Your task to perform on an android device: Open Reddit.com Image 0: 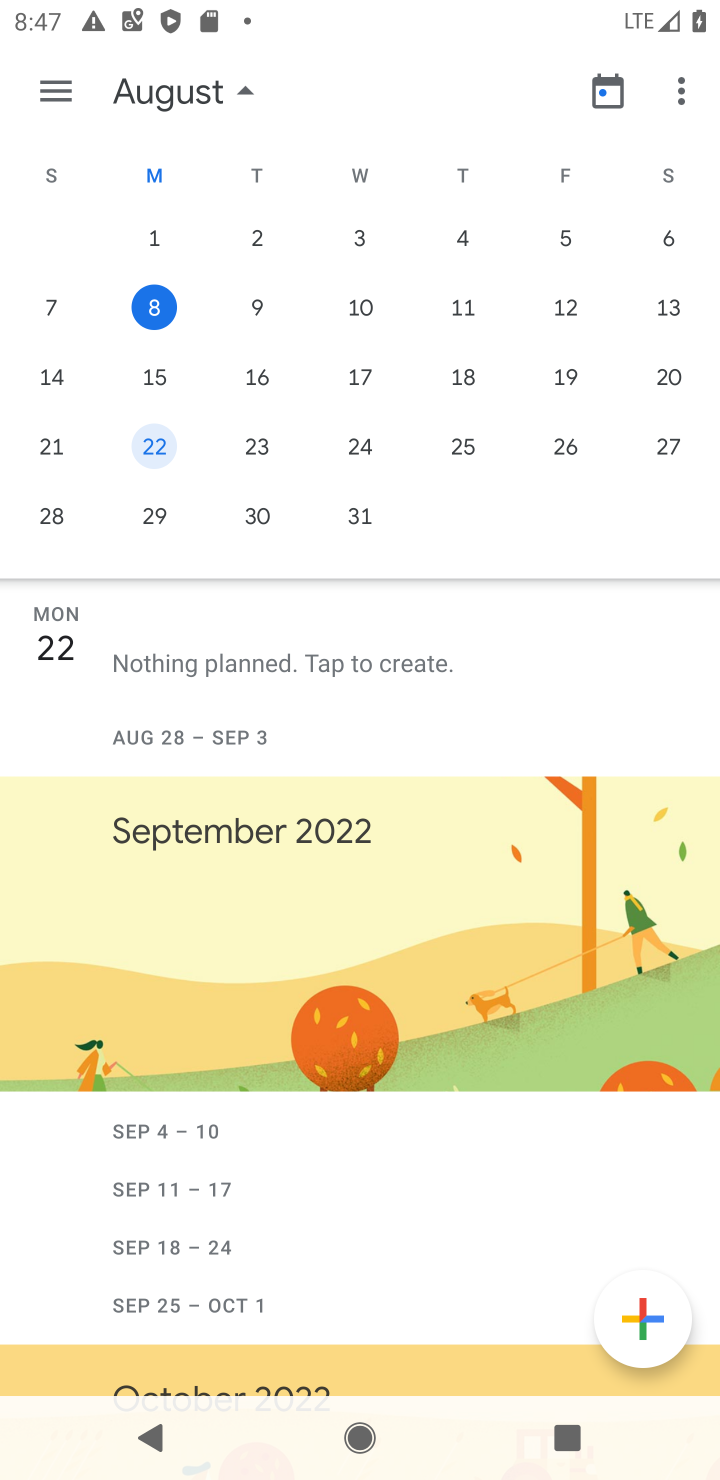
Step 0: press back button
Your task to perform on an android device: Open Reddit.com Image 1: 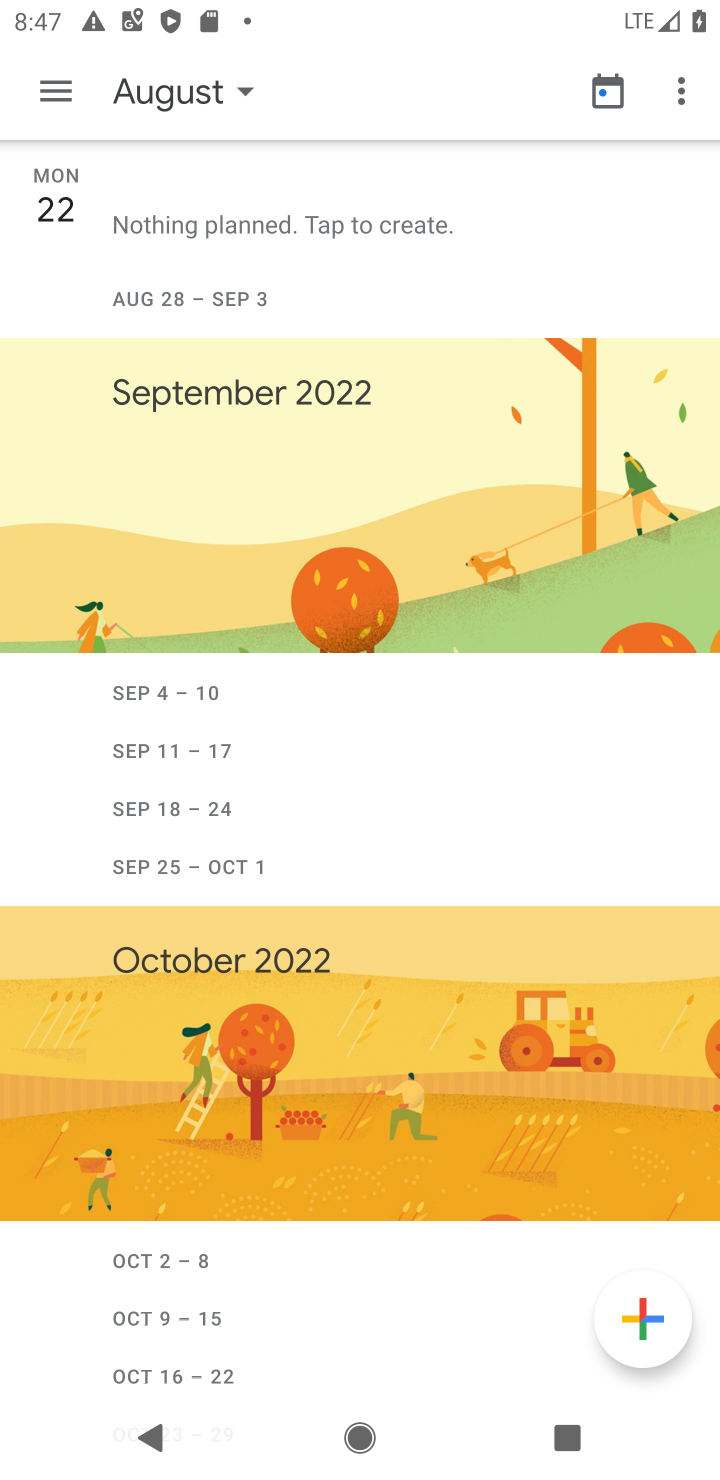
Step 1: press back button
Your task to perform on an android device: Open Reddit.com Image 2: 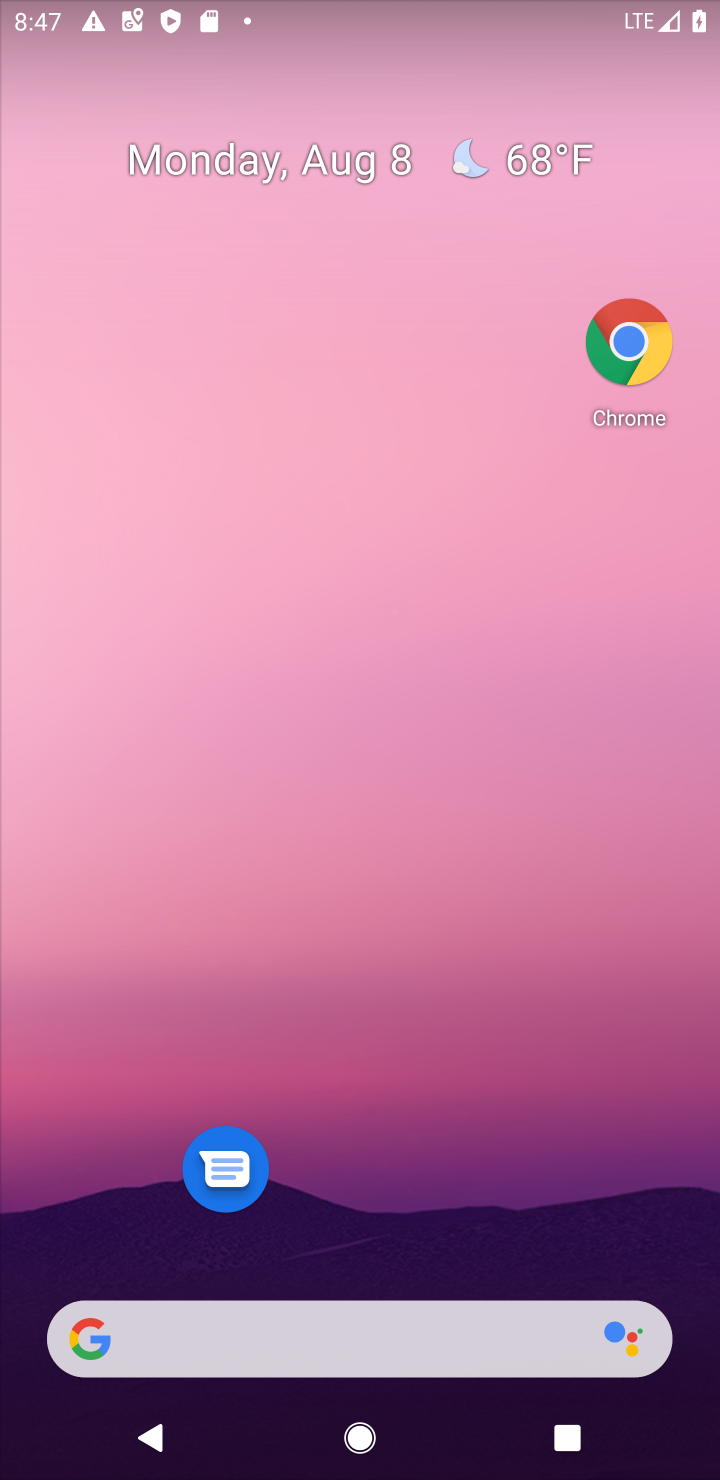
Step 2: click (618, 363)
Your task to perform on an android device: Open Reddit.com Image 3: 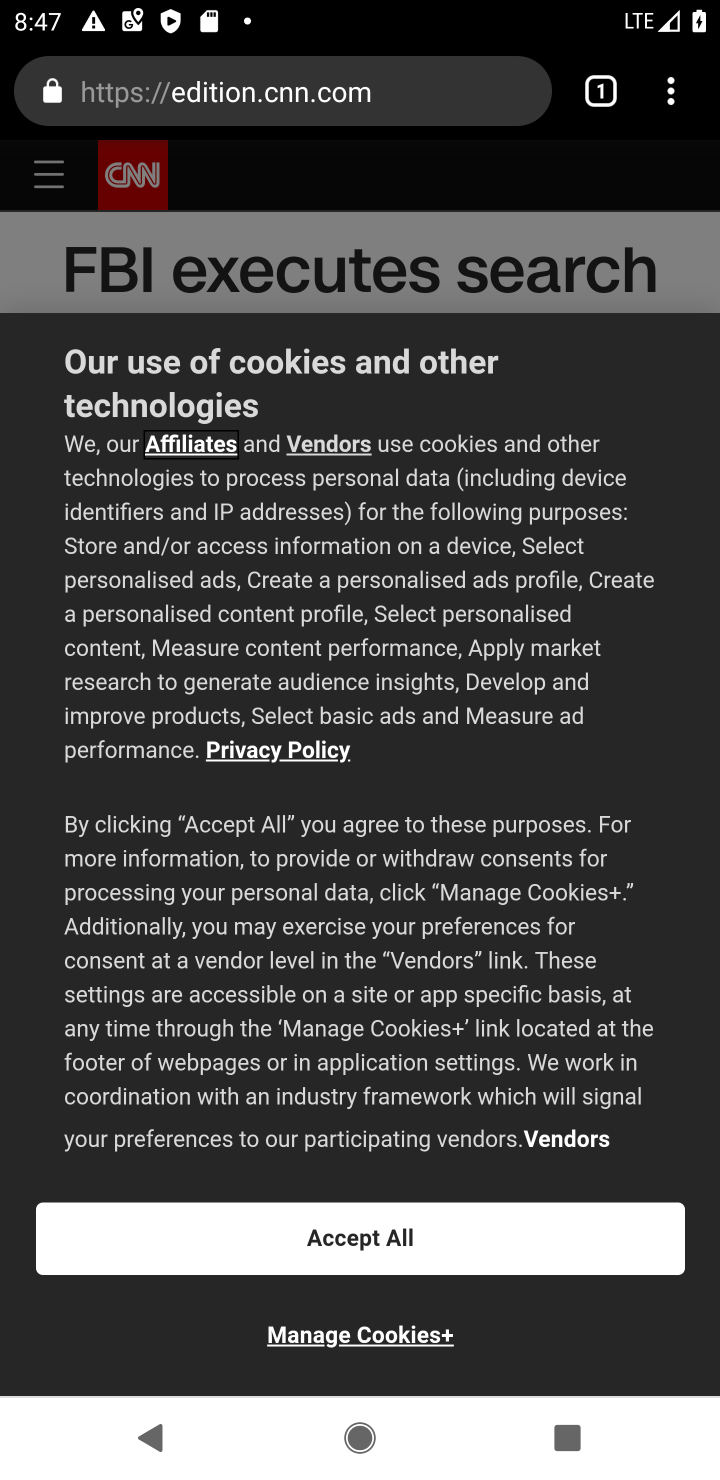
Step 3: click (613, 76)
Your task to perform on an android device: Open Reddit.com Image 4: 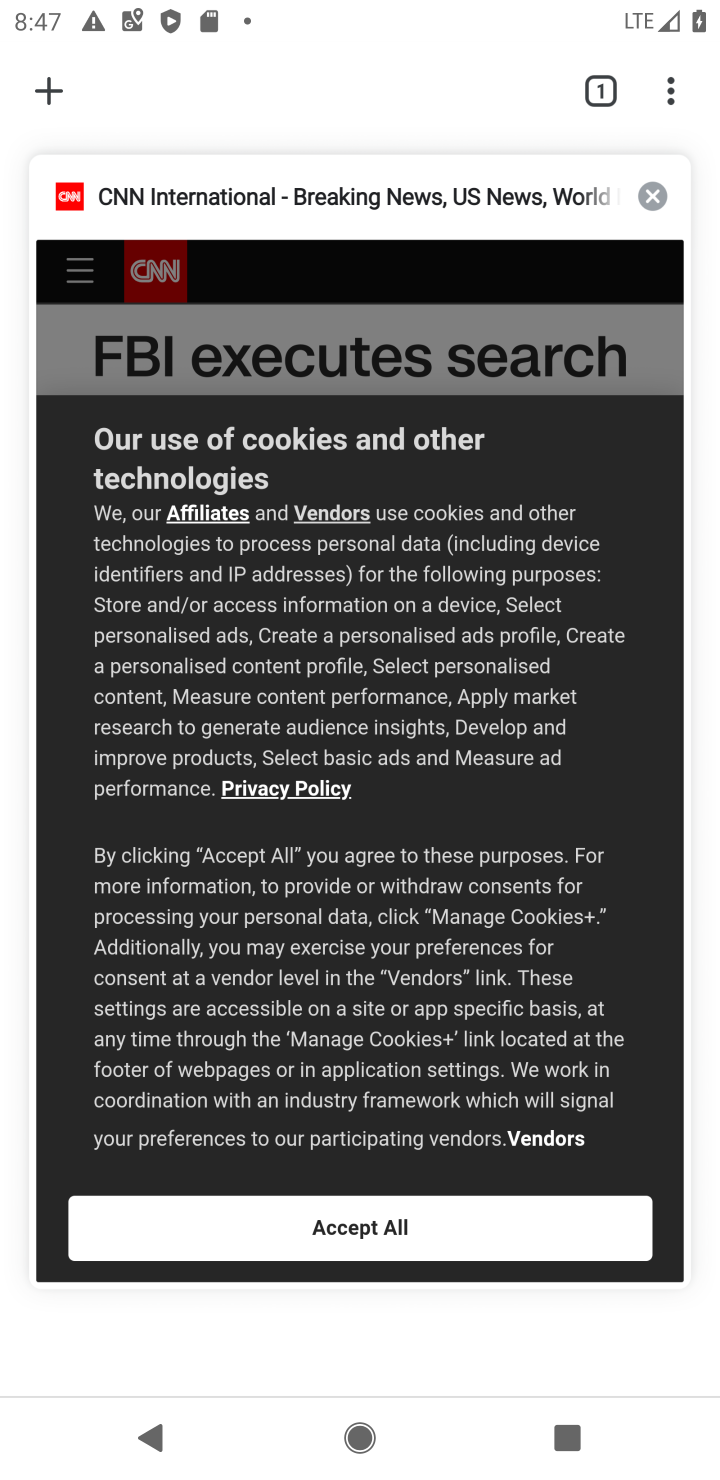
Step 4: click (61, 90)
Your task to perform on an android device: Open Reddit.com Image 5: 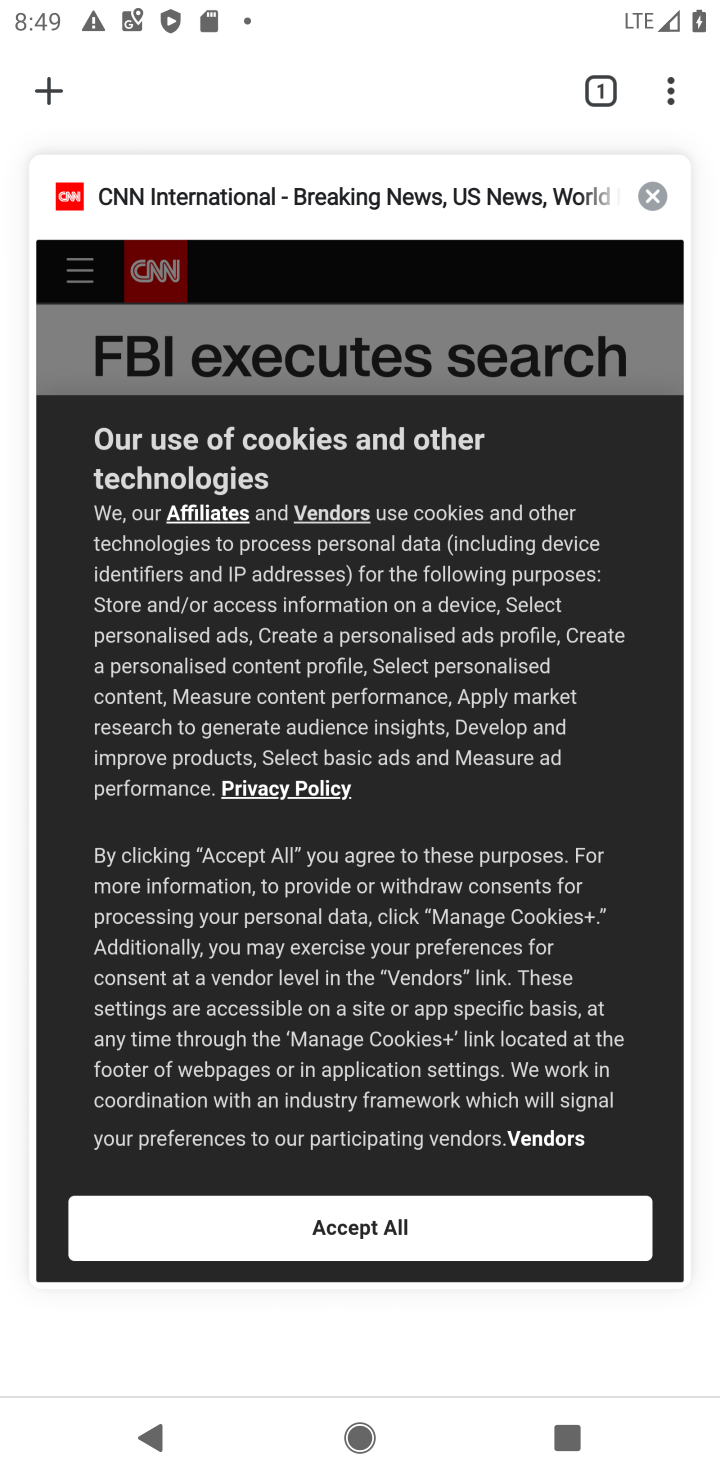
Step 5: click (55, 89)
Your task to perform on an android device: Open Reddit.com Image 6: 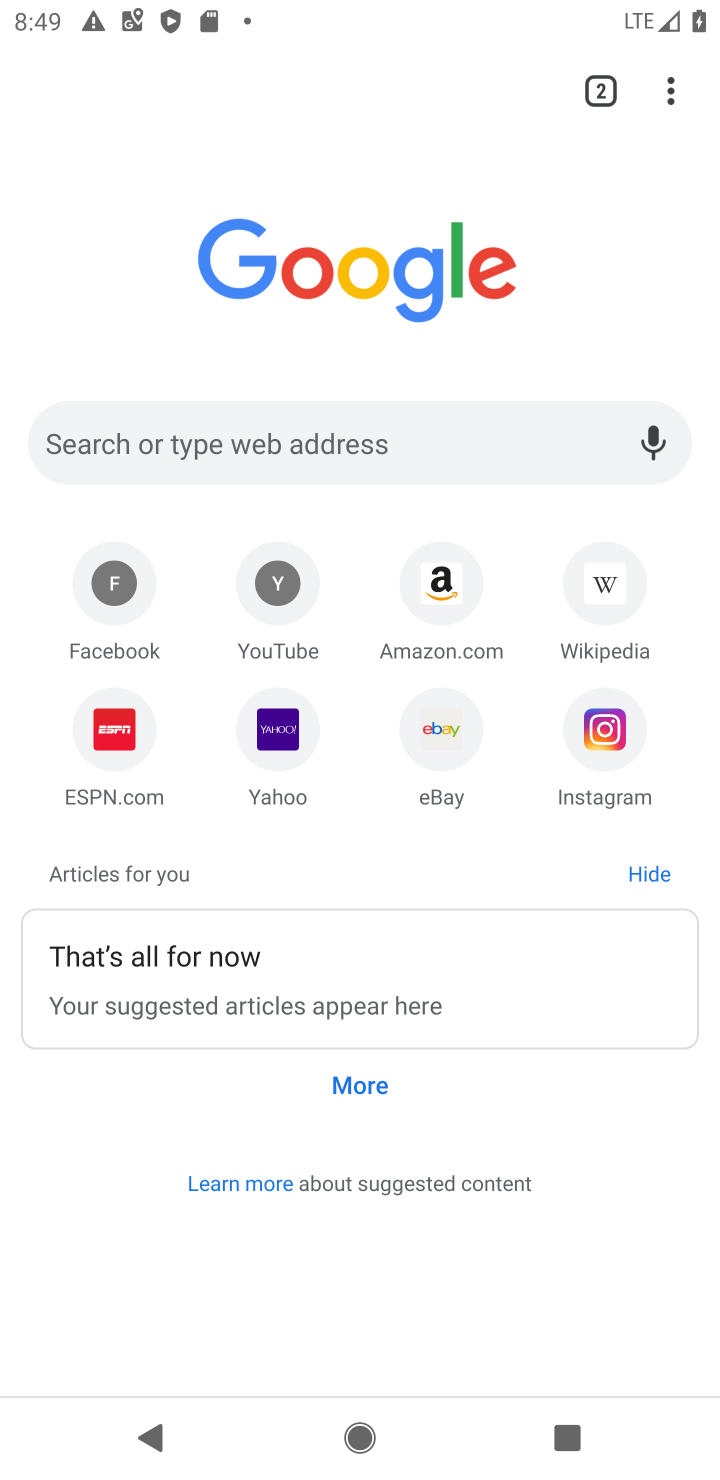
Step 6: click (186, 440)
Your task to perform on an android device: Open Reddit.com Image 7: 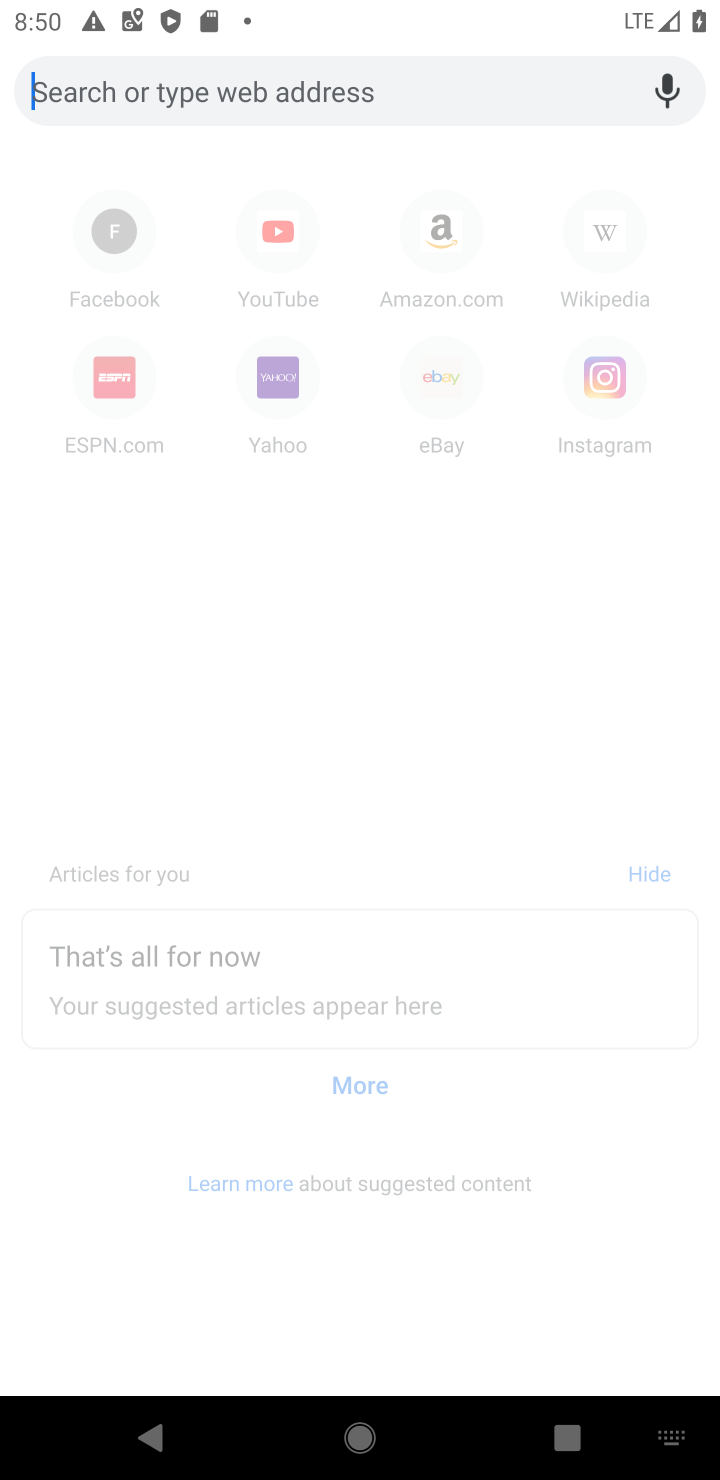
Step 7: type "reddit.com"
Your task to perform on an android device: Open Reddit.com Image 8: 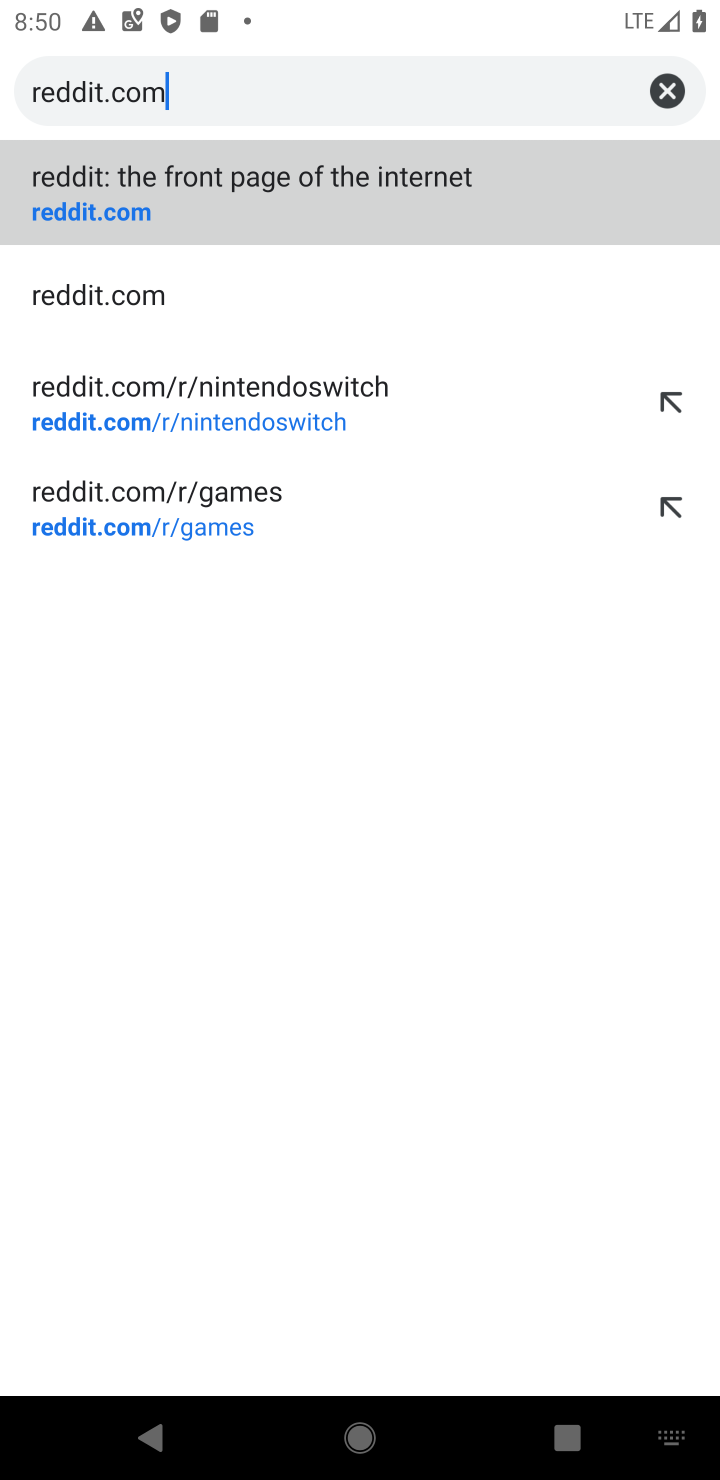
Step 8: click (288, 88)
Your task to perform on an android device: Open Reddit.com Image 9: 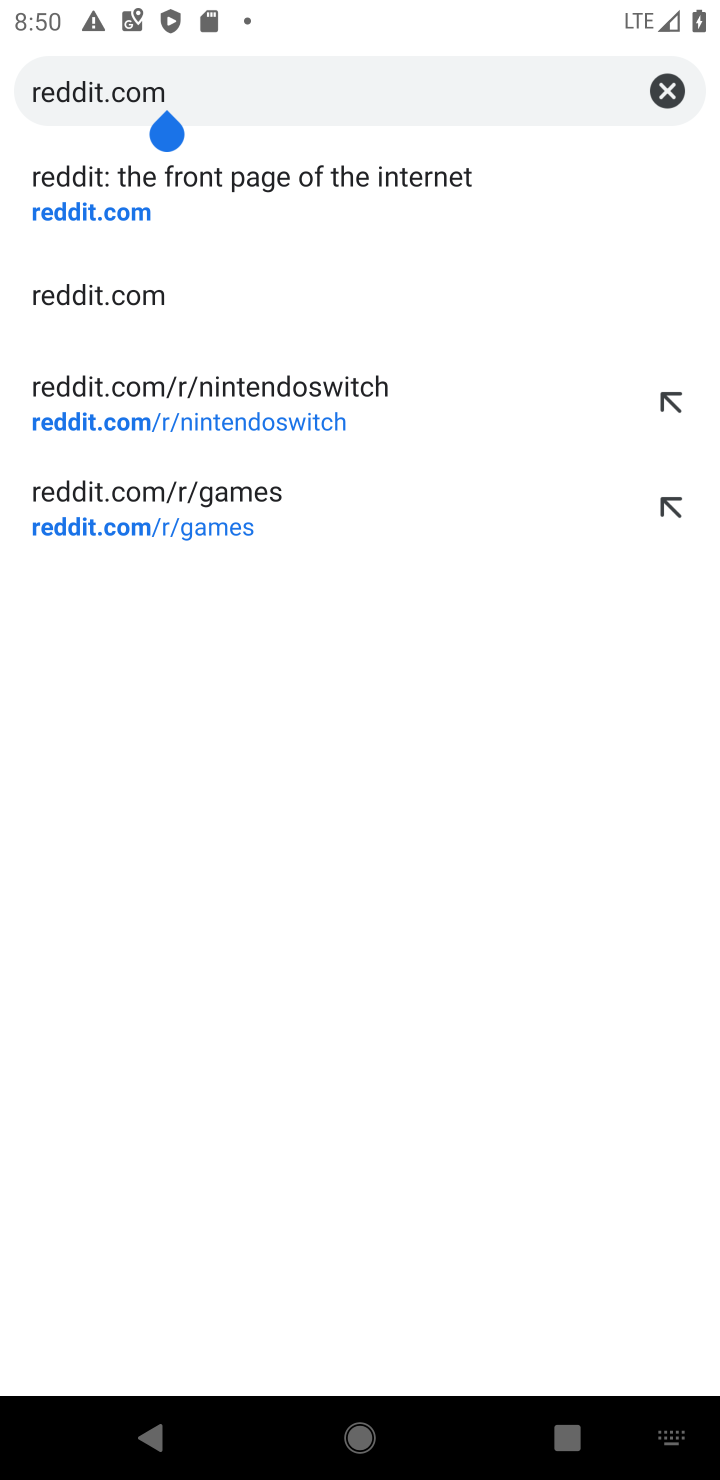
Step 9: click (138, 215)
Your task to perform on an android device: Open Reddit.com Image 10: 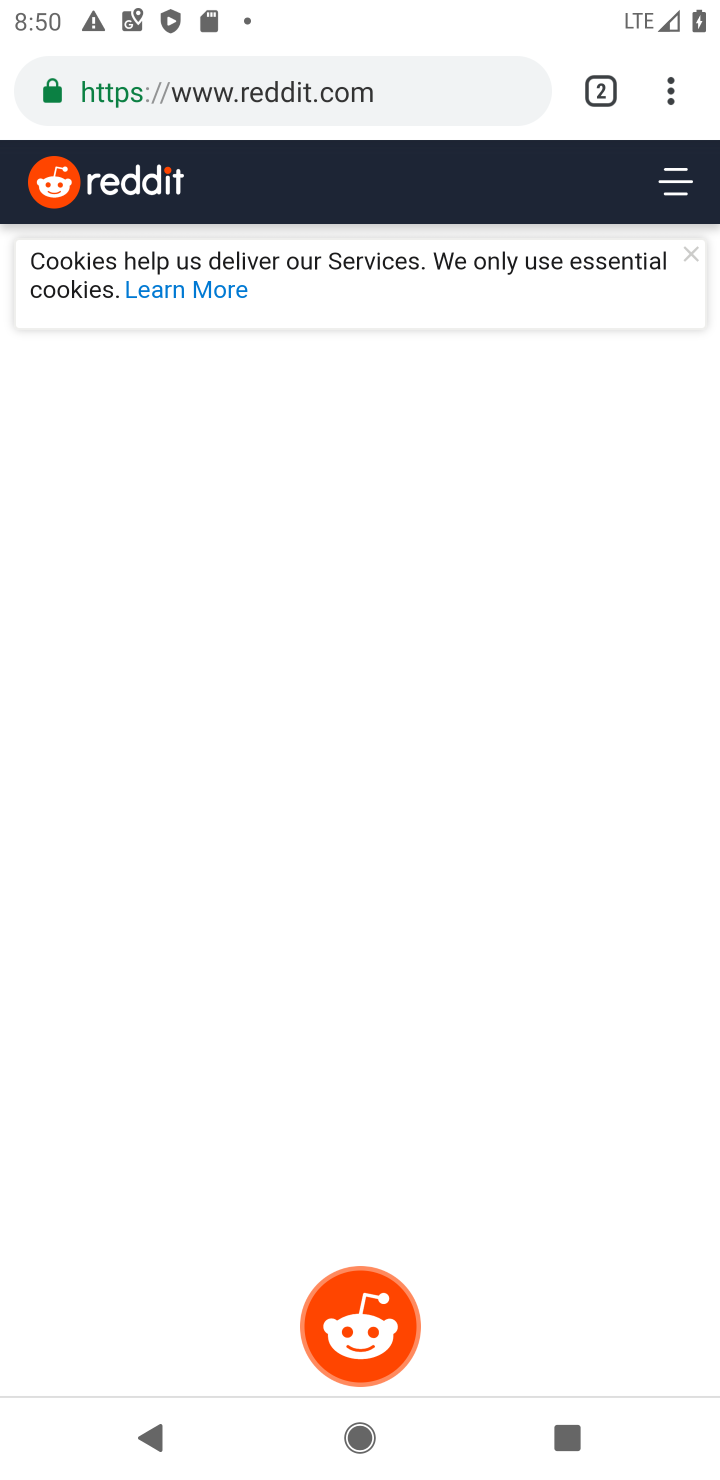
Step 10: task complete